Your task to perform on an android device: Open battery settings Image 0: 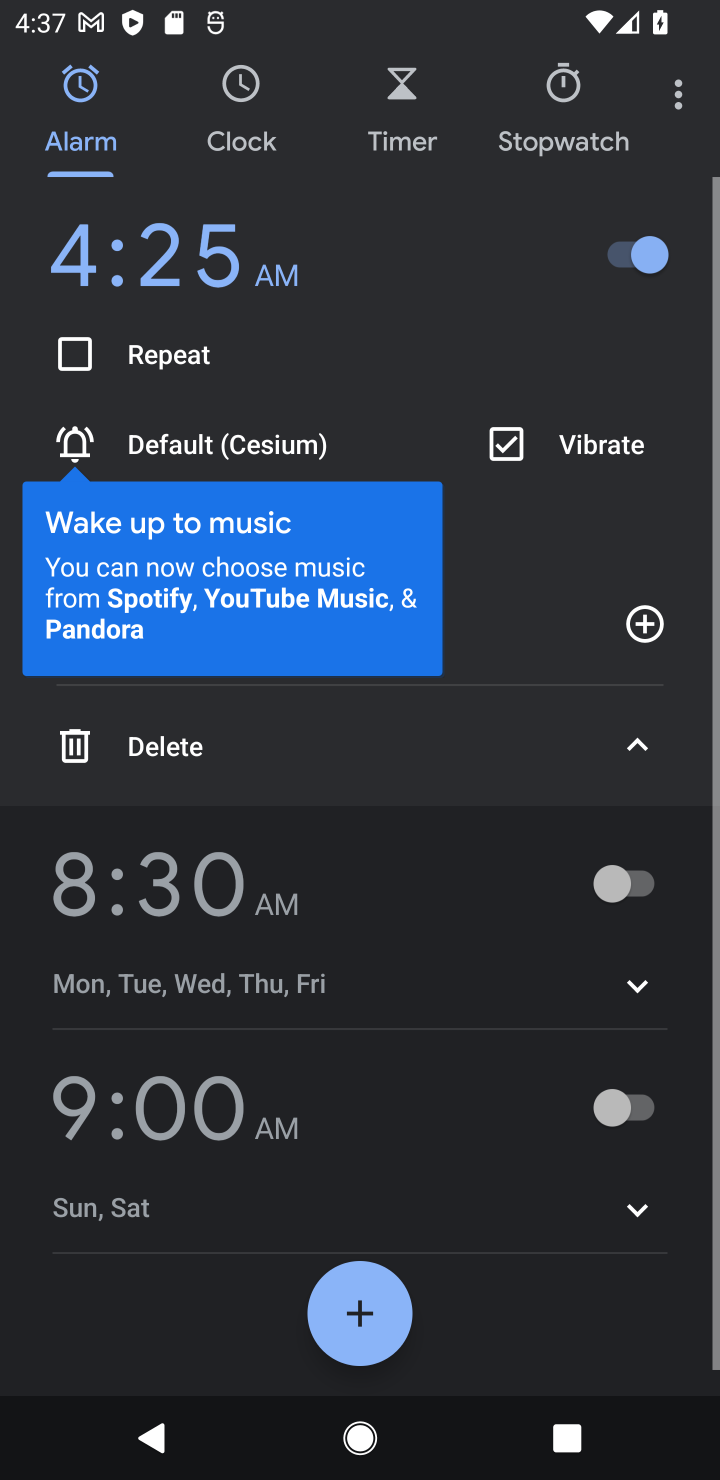
Step 0: press home button
Your task to perform on an android device: Open battery settings Image 1: 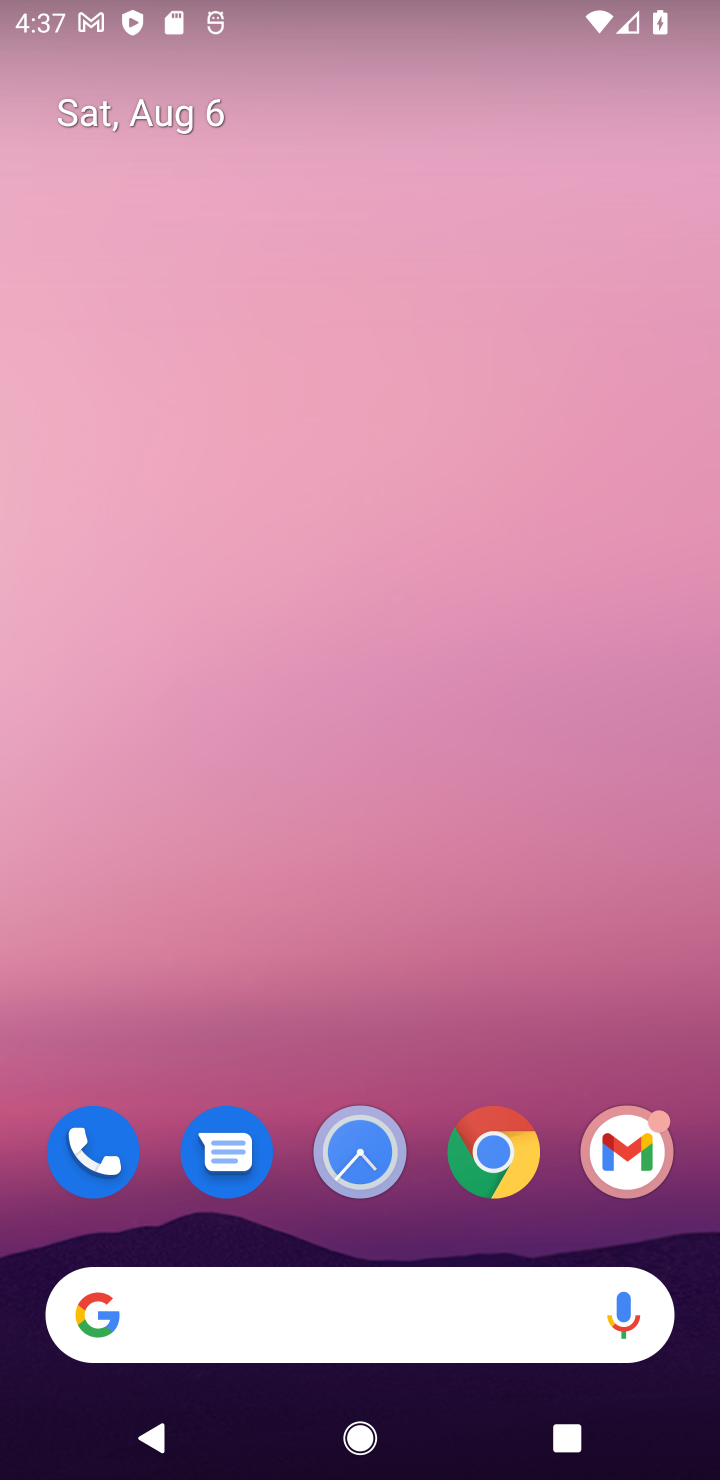
Step 1: drag from (392, 976) to (407, 125)
Your task to perform on an android device: Open battery settings Image 2: 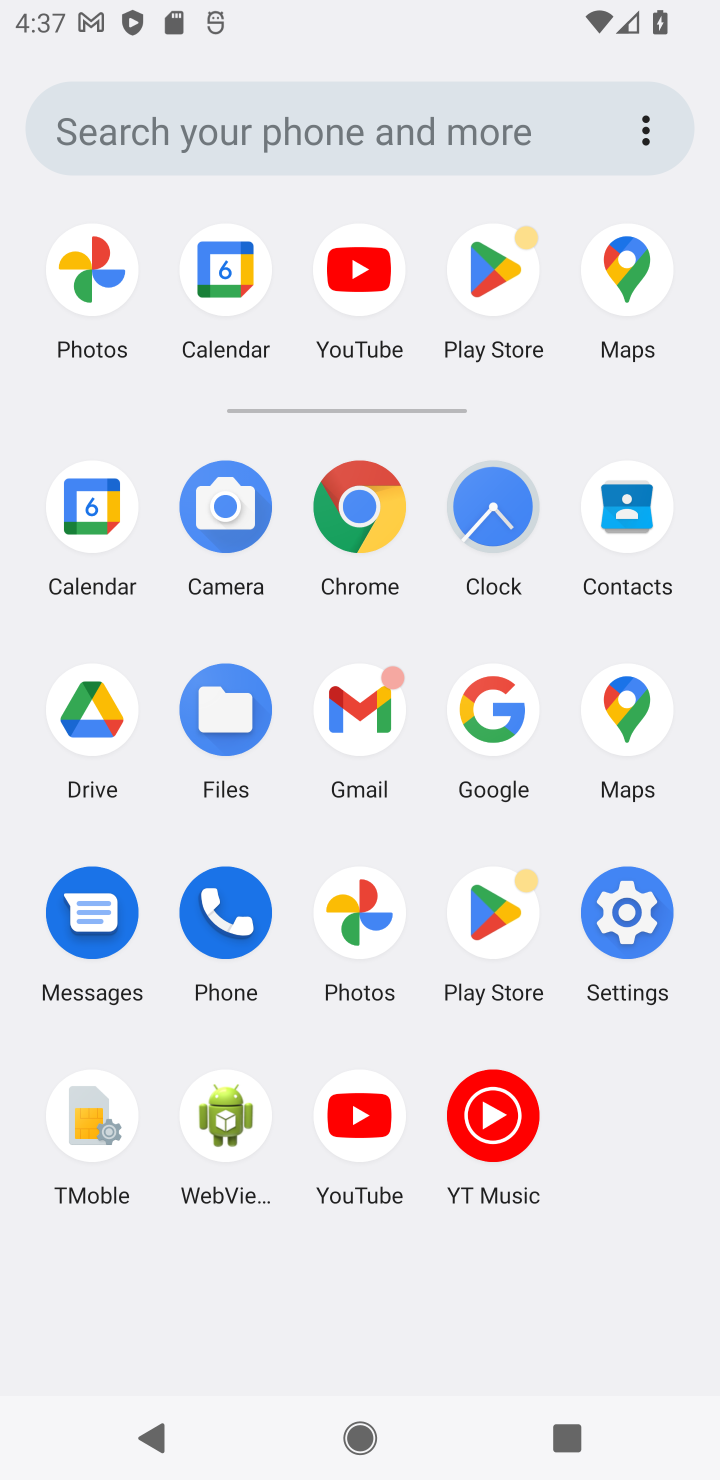
Step 2: click (637, 928)
Your task to perform on an android device: Open battery settings Image 3: 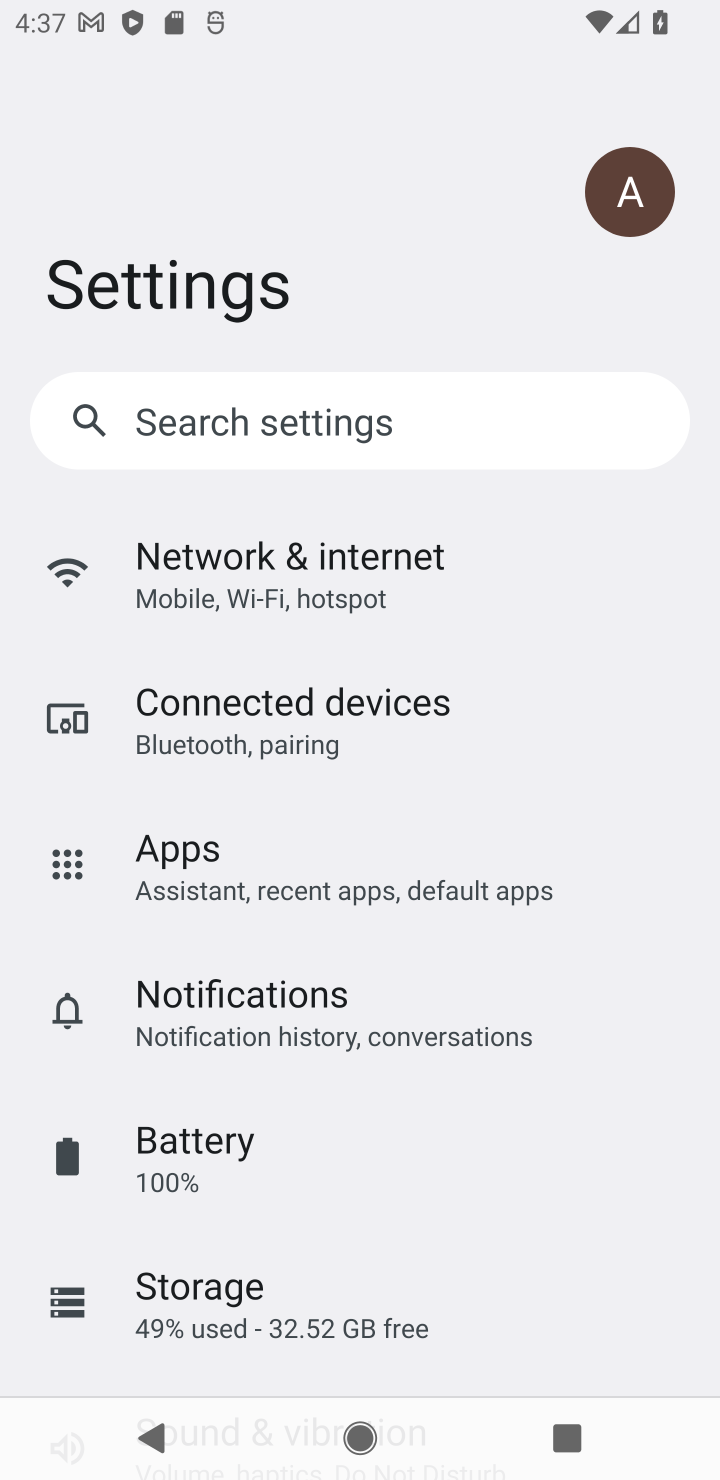
Step 3: drag from (327, 1167) to (356, 451)
Your task to perform on an android device: Open battery settings Image 4: 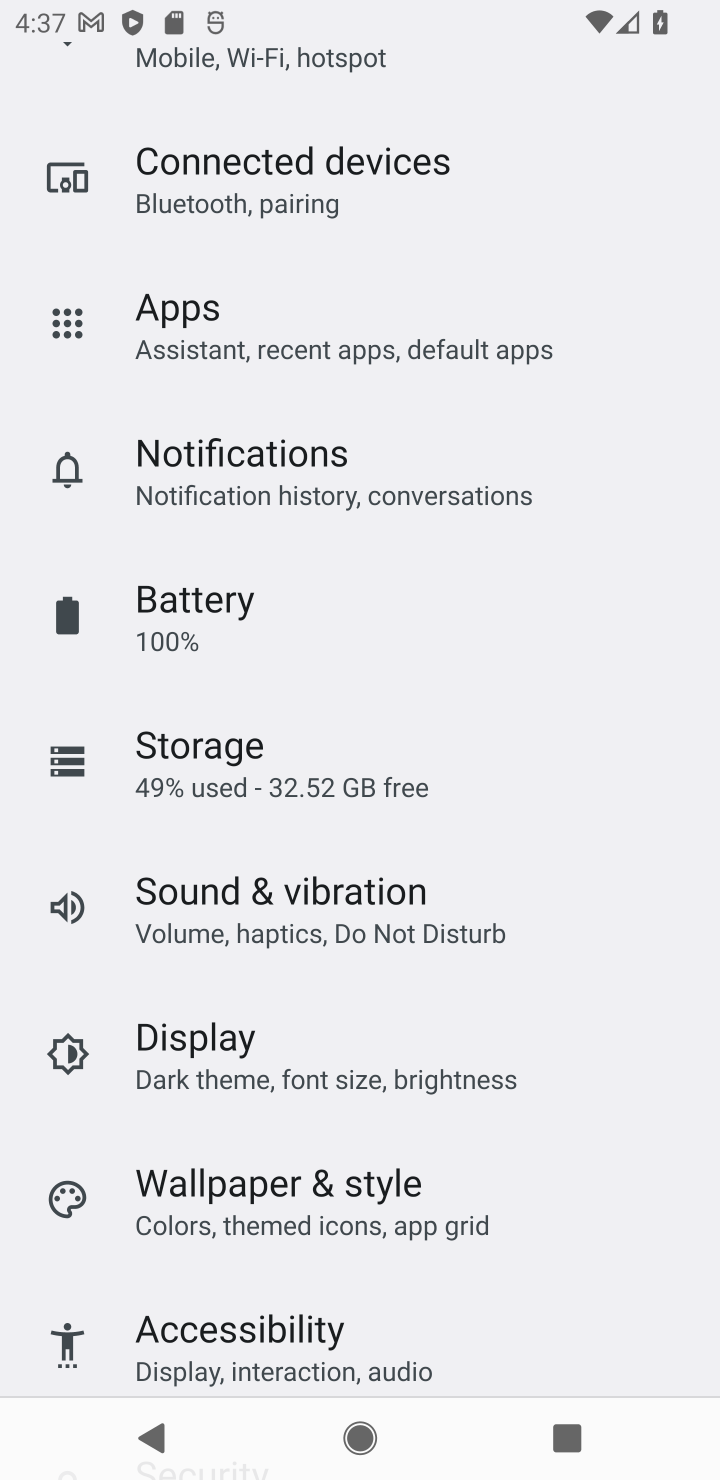
Step 4: click (215, 626)
Your task to perform on an android device: Open battery settings Image 5: 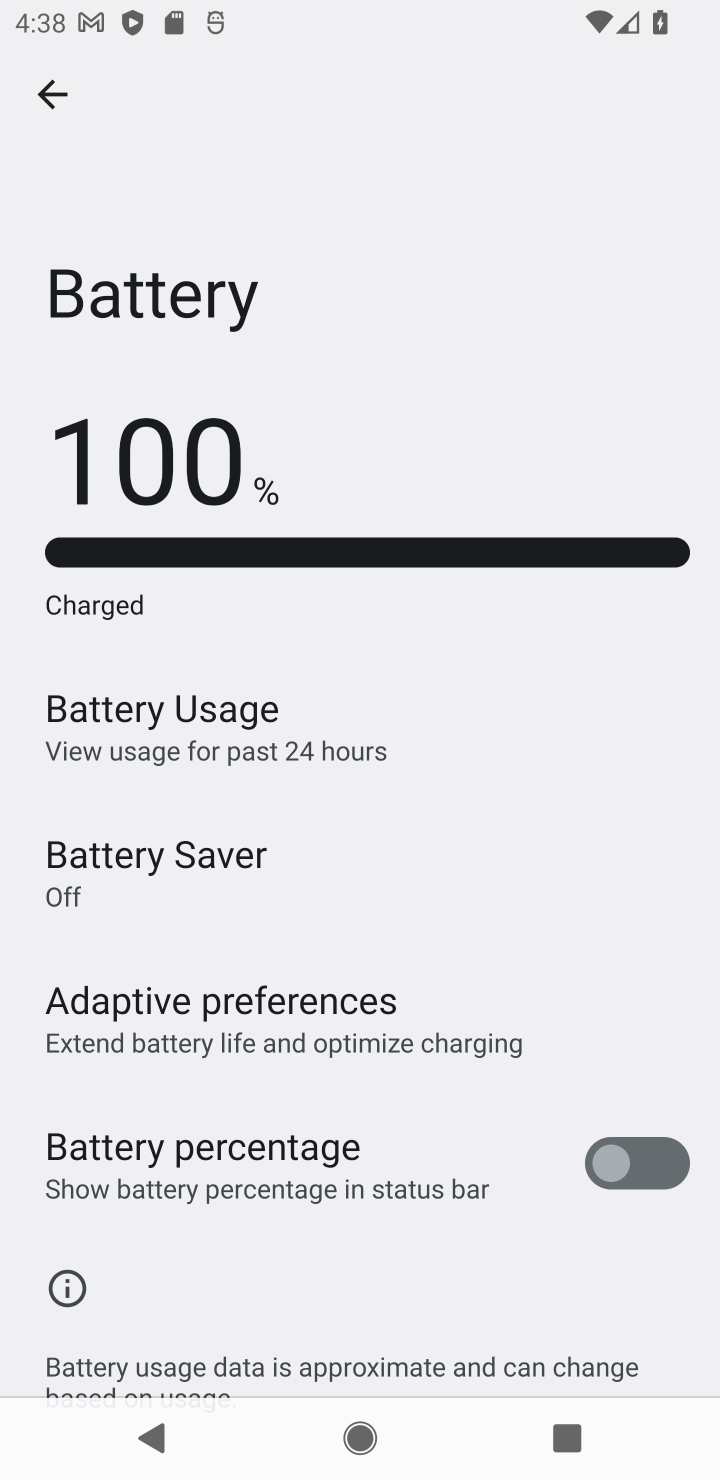
Step 5: task complete